Your task to perform on an android device: delete browsing data in the chrome app Image 0: 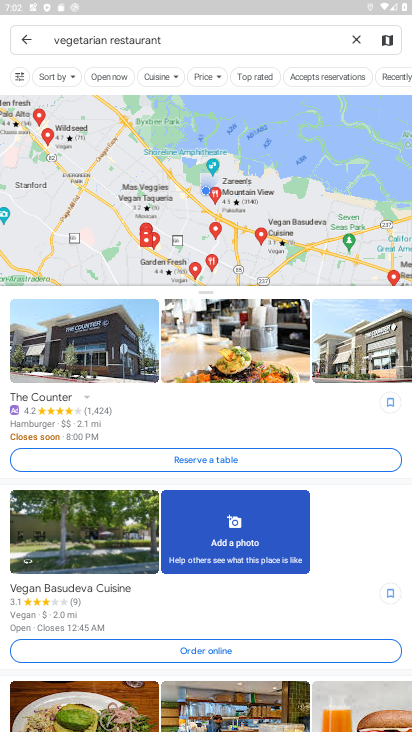
Step 0: press home button
Your task to perform on an android device: delete browsing data in the chrome app Image 1: 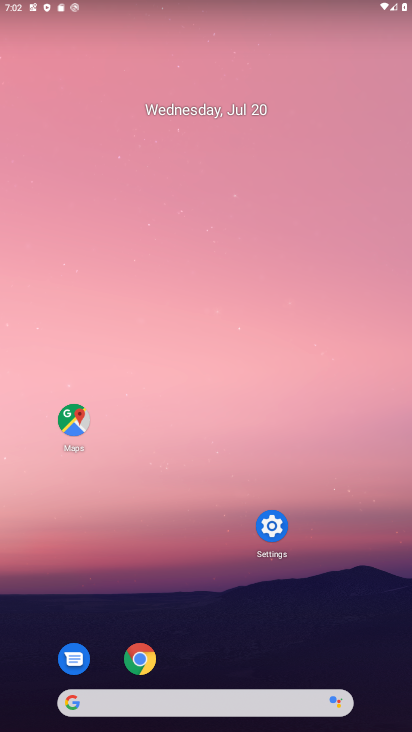
Step 1: click (140, 658)
Your task to perform on an android device: delete browsing data in the chrome app Image 2: 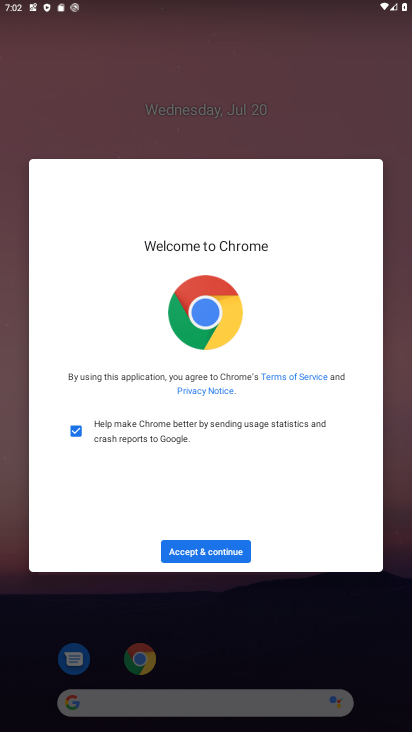
Step 2: click (196, 549)
Your task to perform on an android device: delete browsing data in the chrome app Image 3: 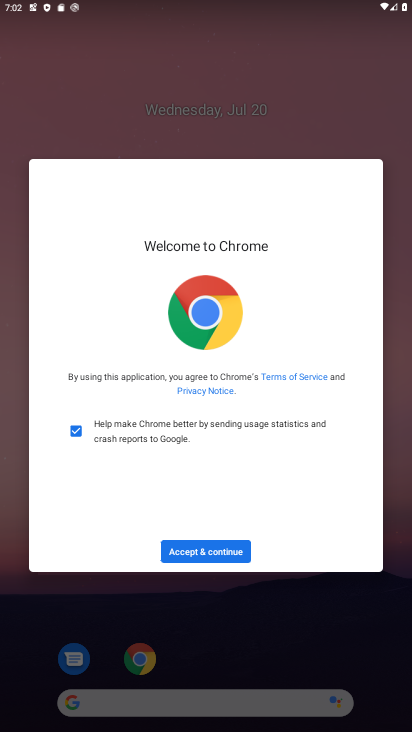
Step 3: click (196, 557)
Your task to perform on an android device: delete browsing data in the chrome app Image 4: 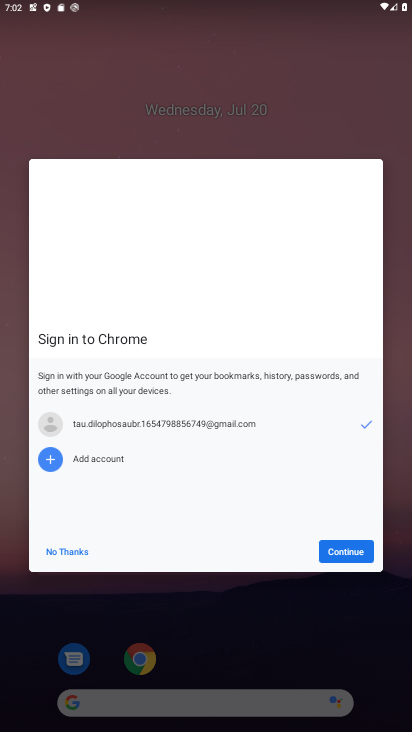
Step 4: click (337, 553)
Your task to perform on an android device: delete browsing data in the chrome app Image 5: 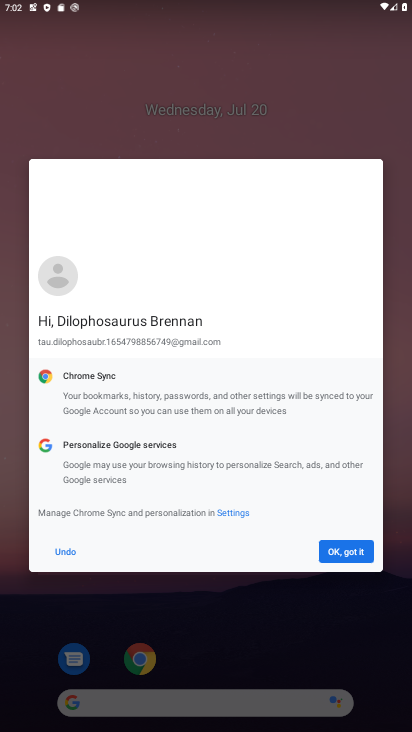
Step 5: click (337, 553)
Your task to perform on an android device: delete browsing data in the chrome app Image 6: 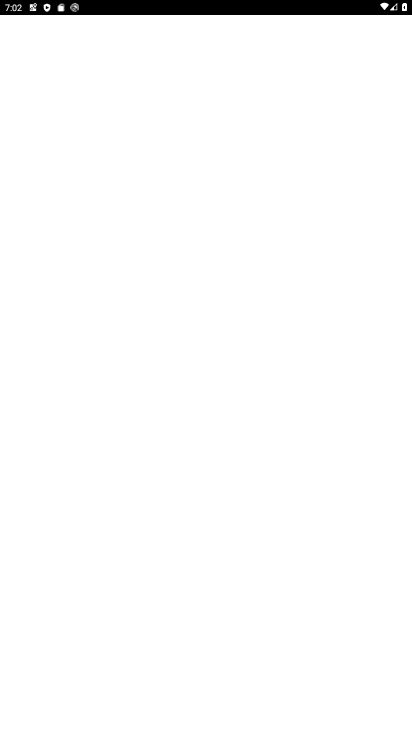
Step 6: click (337, 553)
Your task to perform on an android device: delete browsing data in the chrome app Image 7: 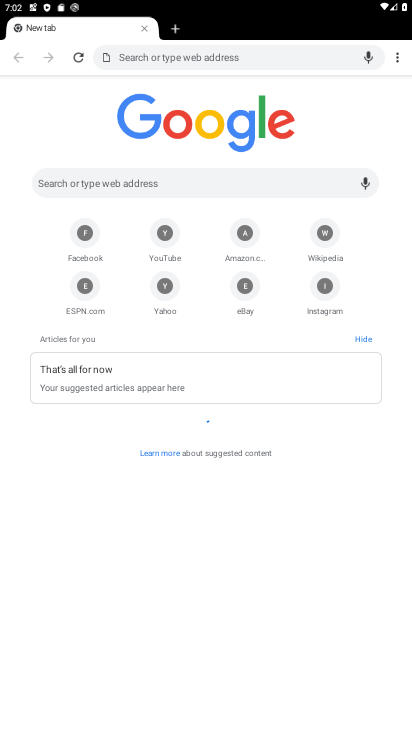
Step 7: click (399, 55)
Your task to perform on an android device: delete browsing data in the chrome app Image 8: 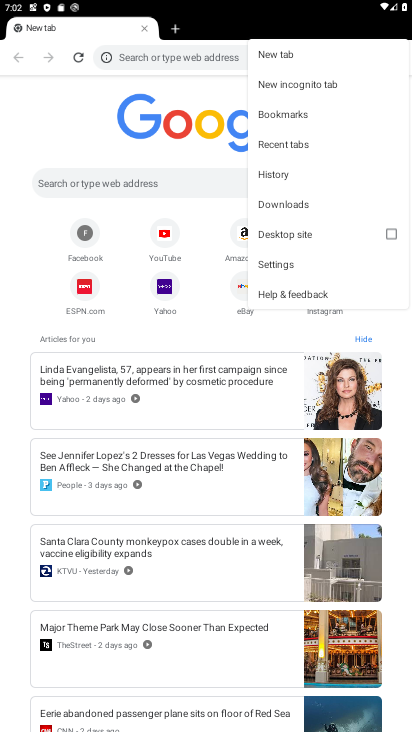
Step 8: click (281, 178)
Your task to perform on an android device: delete browsing data in the chrome app Image 9: 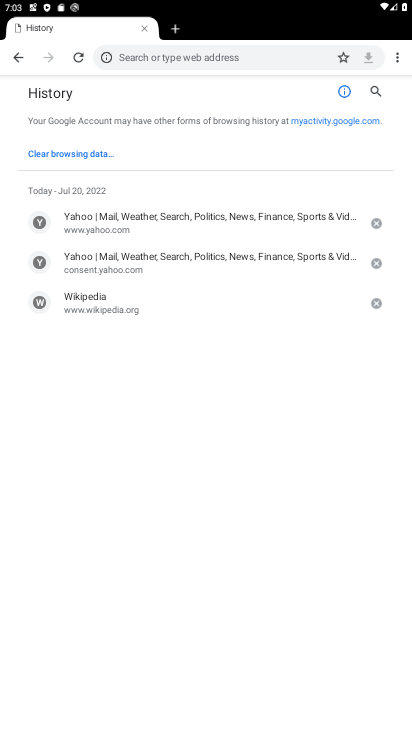
Step 9: click (61, 155)
Your task to perform on an android device: delete browsing data in the chrome app Image 10: 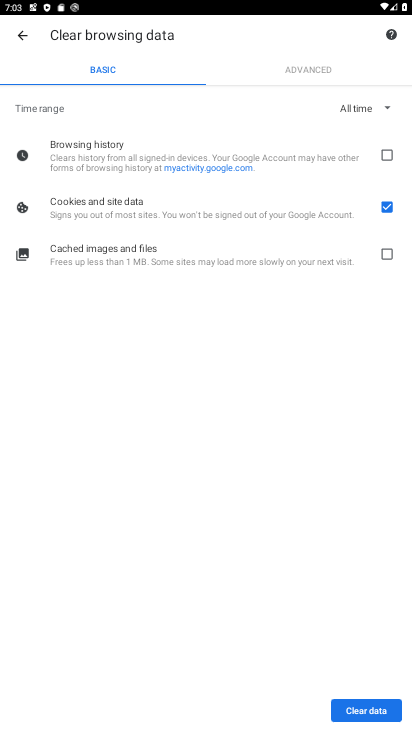
Step 10: click (379, 160)
Your task to perform on an android device: delete browsing data in the chrome app Image 11: 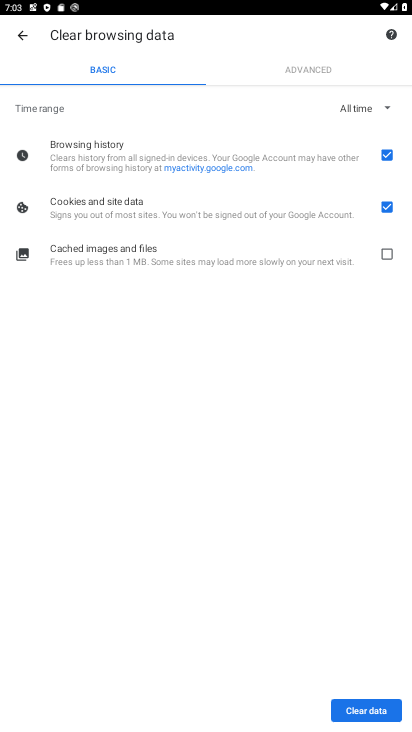
Step 11: click (387, 200)
Your task to perform on an android device: delete browsing data in the chrome app Image 12: 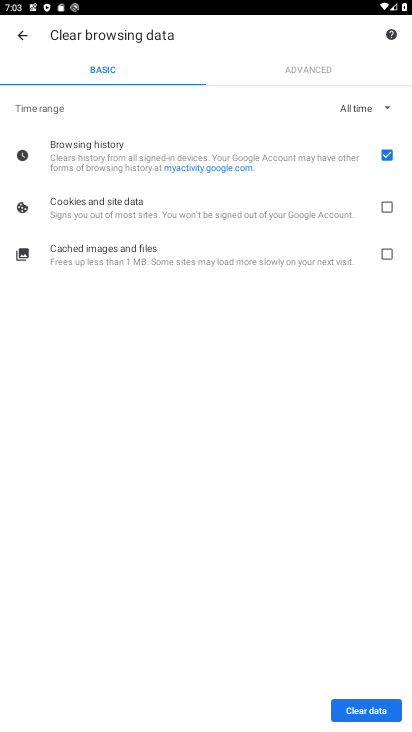
Step 12: click (375, 715)
Your task to perform on an android device: delete browsing data in the chrome app Image 13: 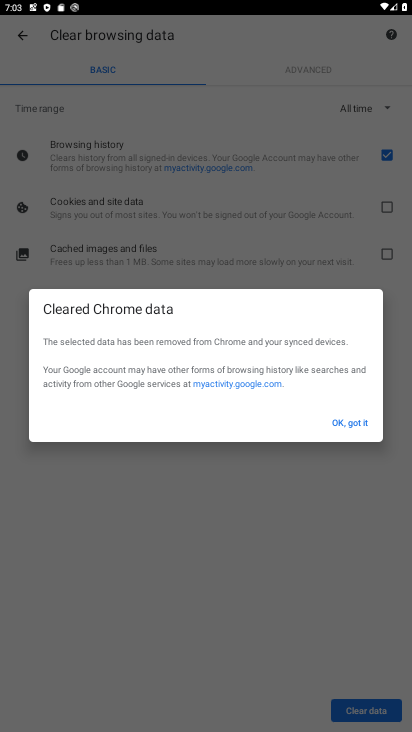
Step 13: task complete